Your task to perform on an android device: toggle improve location accuracy Image 0: 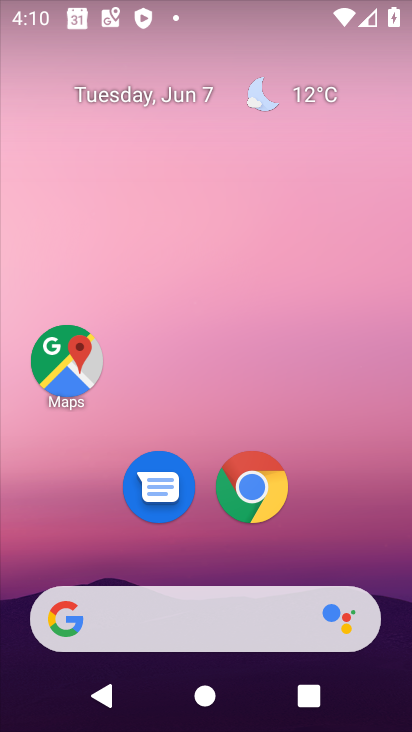
Step 0: drag from (234, 572) to (263, 59)
Your task to perform on an android device: toggle improve location accuracy Image 1: 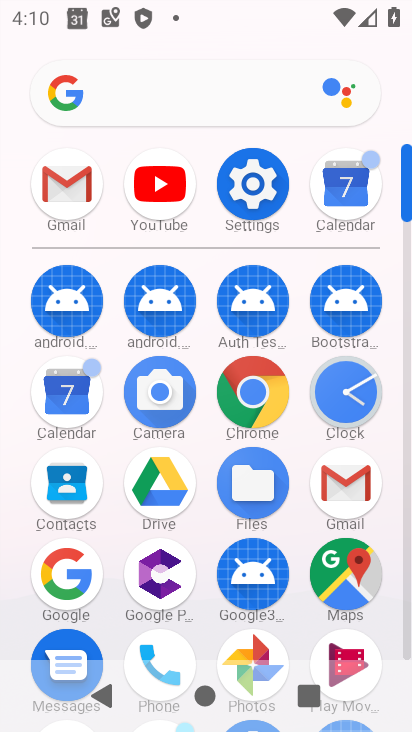
Step 1: click (241, 201)
Your task to perform on an android device: toggle improve location accuracy Image 2: 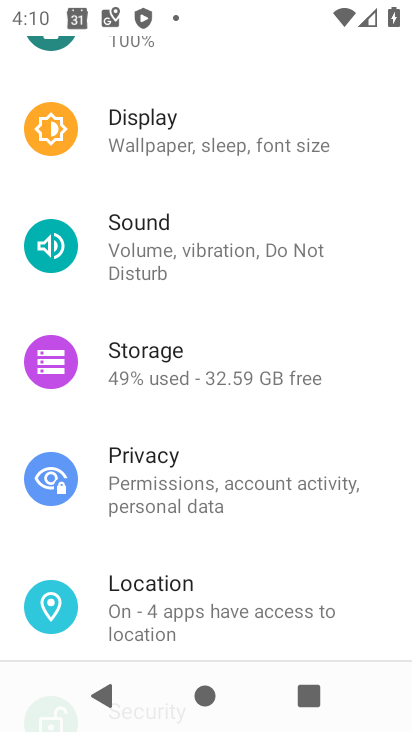
Step 2: click (166, 593)
Your task to perform on an android device: toggle improve location accuracy Image 3: 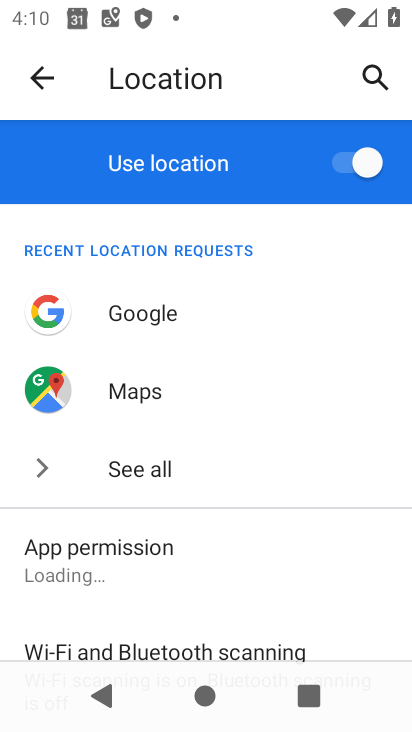
Step 3: drag from (158, 612) to (211, 190)
Your task to perform on an android device: toggle improve location accuracy Image 4: 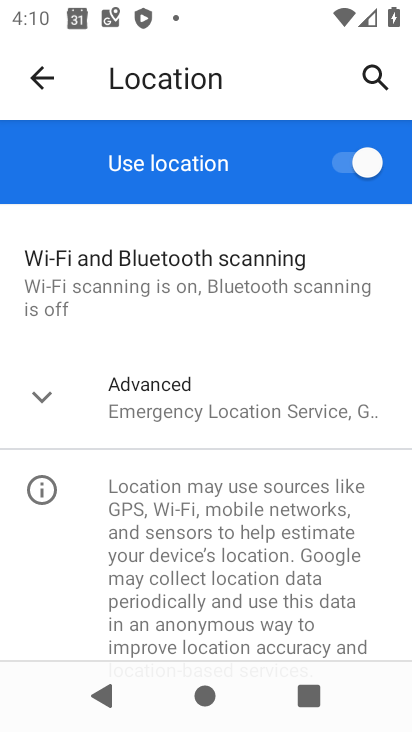
Step 4: click (201, 399)
Your task to perform on an android device: toggle improve location accuracy Image 5: 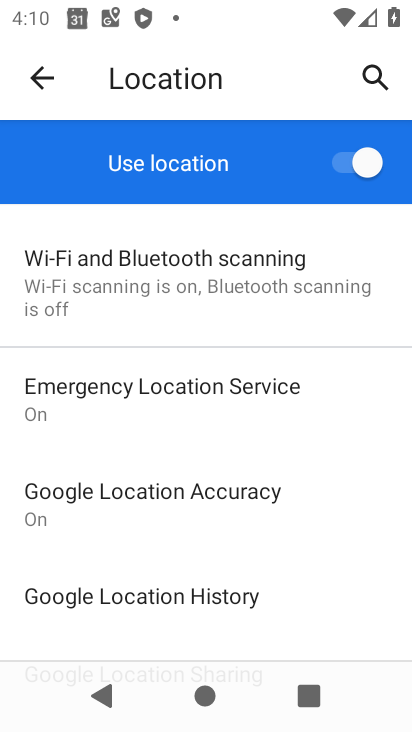
Step 5: click (171, 500)
Your task to perform on an android device: toggle improve location accuracy Image 6: 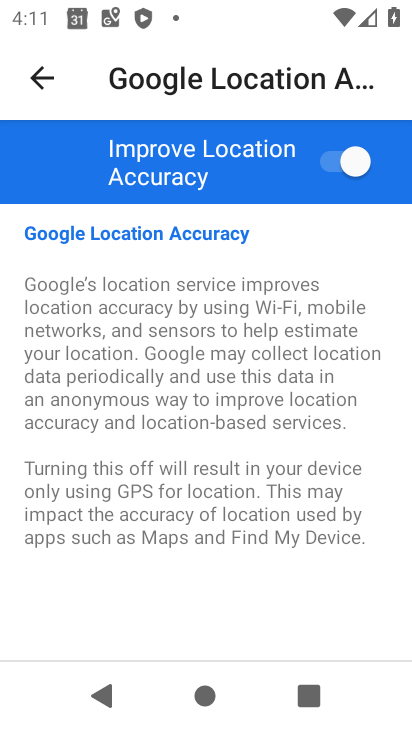
Step 6: click (349, 166)
Your task to perform on an android device: toggle improve location accuracy Image 7: 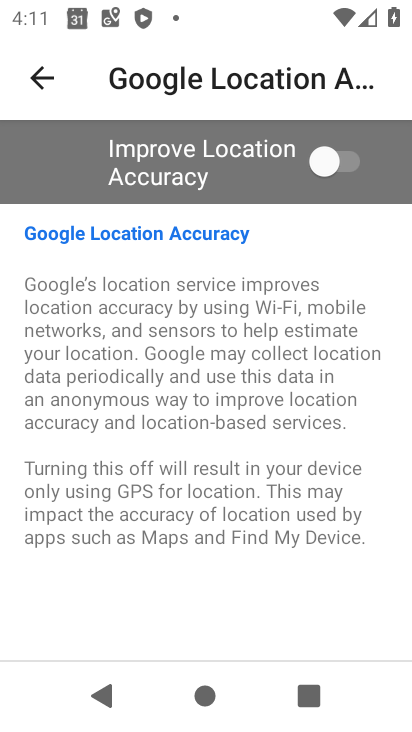
Step 7: task complete